Your task to perform on an android device: Open wifi settings Image 0: 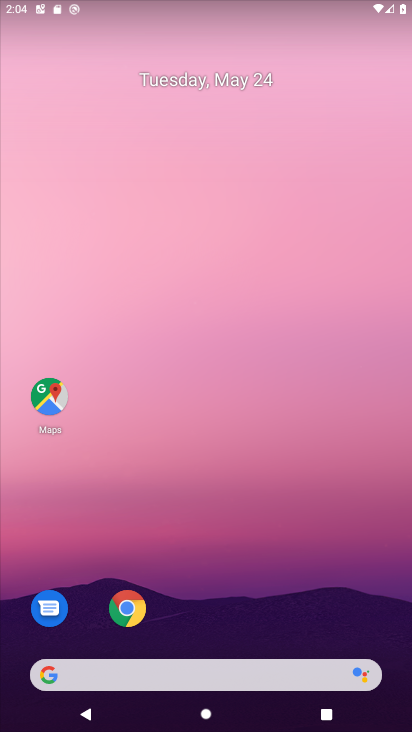
Step 0: click (312, 637)
Your task to perform on an android device: Open wifi settings Image 1: 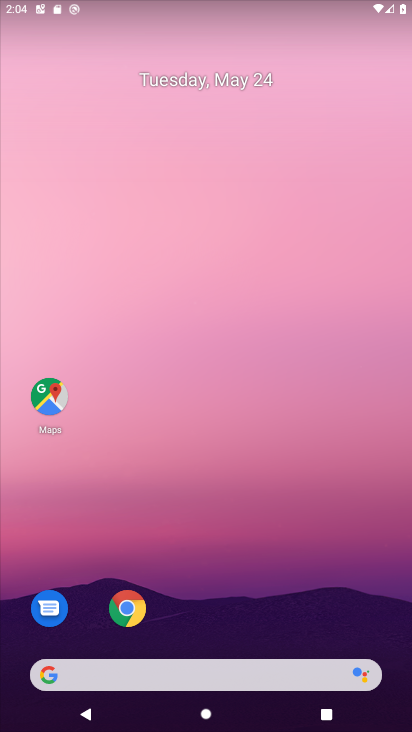
Step 1: drag from (312, 634) to (78, 0)
Your task to perform on an android device: Open wifi settings Image 2: 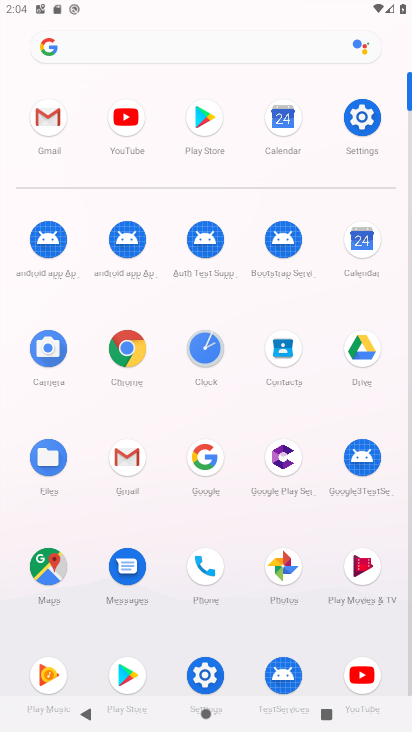
Step 2: click (359, 162)
Your task to perform on an android device: Open wifi settings Image 3: 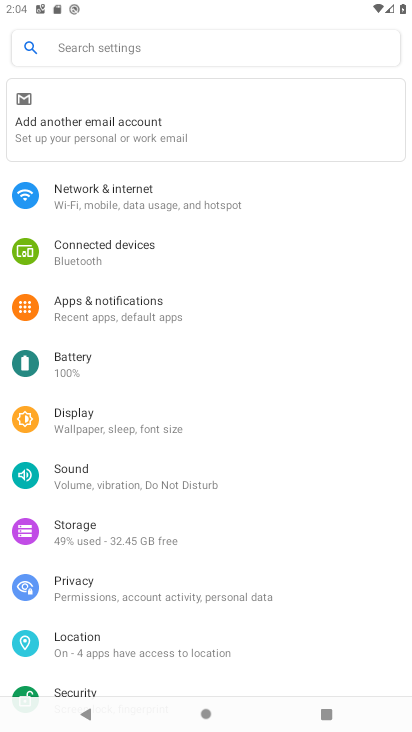
Step 3: click (297, 229)
Your task to perform on an android device: Open wifi settings Image 4: 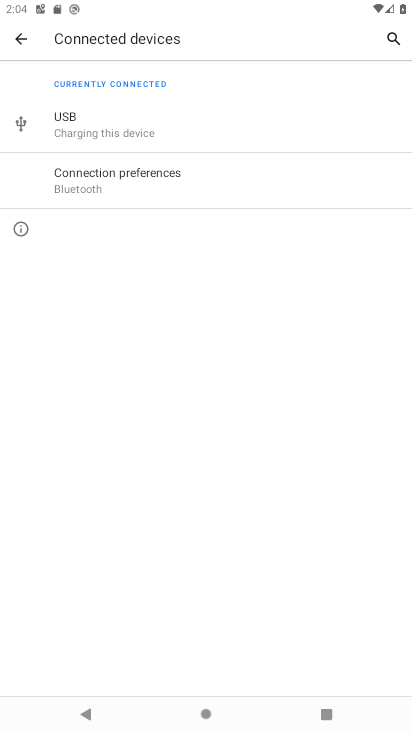
Step 4: click (38, 31)
Your task to perform on an android device: Open wifi settings Image 5: 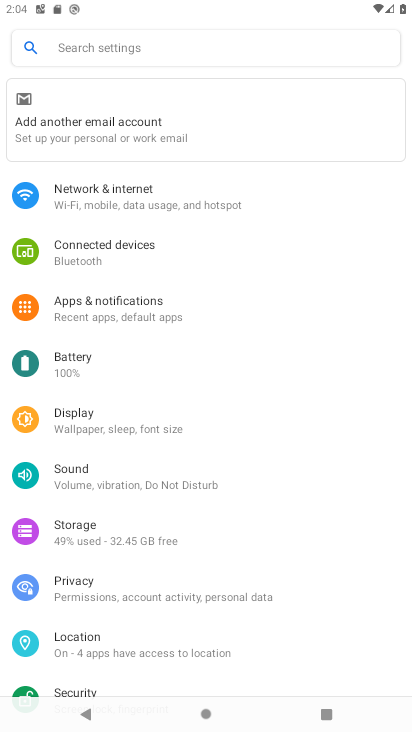
Step 5: click (113, 171)
Your task to perform on an android device: Open wifi settings Image 6: 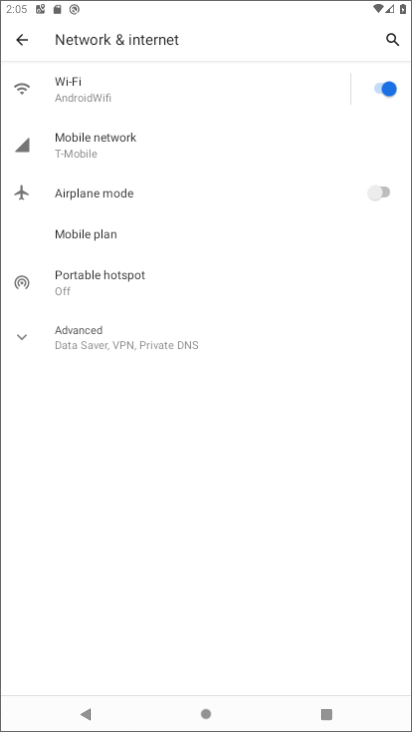
Step 6: click (119, 179)
Your task to perform on an android device: Open wifi settings Image 7: 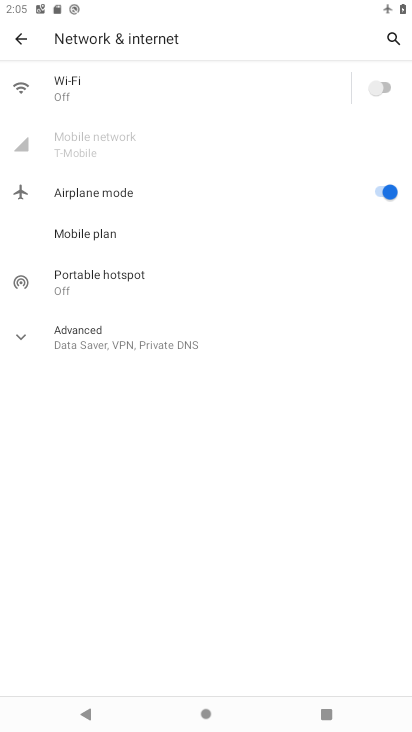
Step 7: click (108, 73)
Your task to perform on an android device: Open wifi settings Image 8: 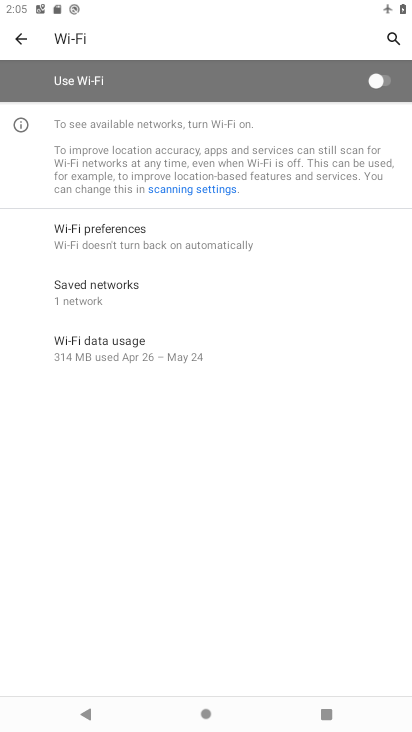
Step 8: task complete